Your task to perform on an android device: toggle data saver in the chrome app Image 0: 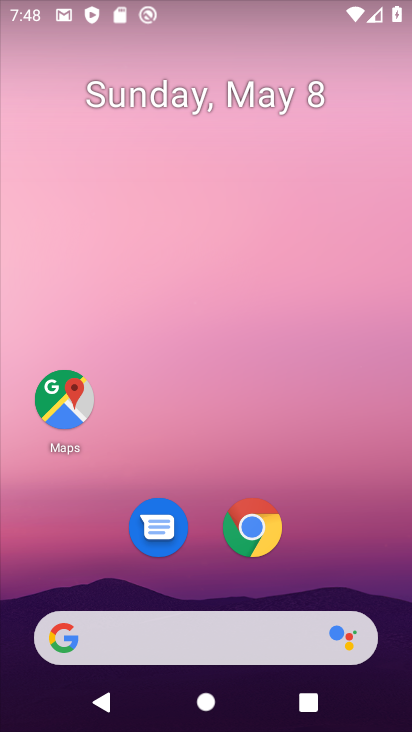
Step 0: drag from (381, 657) to (303, 11)
Your task to perform on an android device: toggle data saver in the chrome app Image 1: 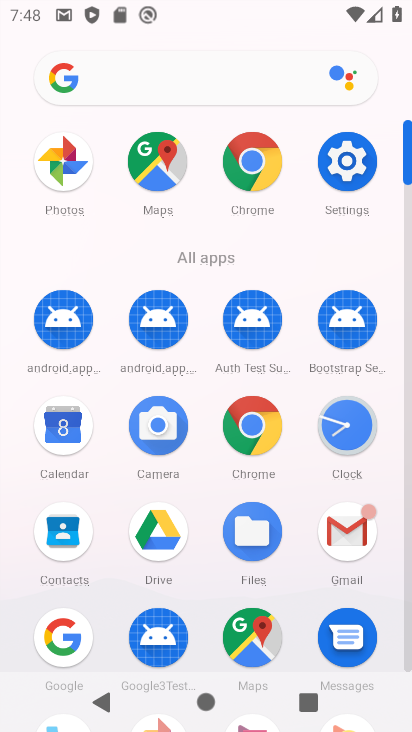
Step 1: click (249, 424)
Your task to perform on an android device: toggle data saver in the chrome app Image 2: 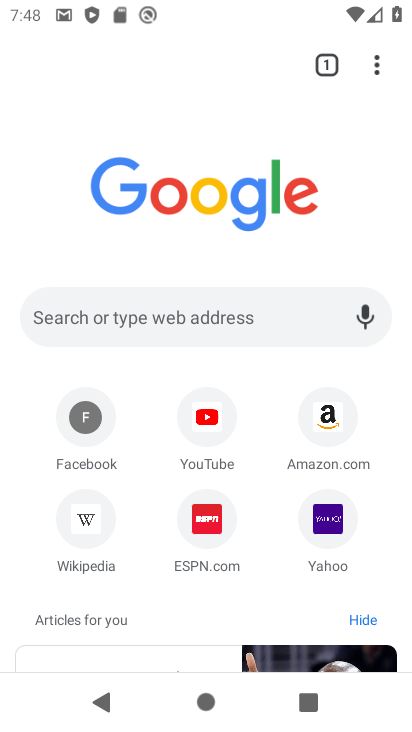
Step 2: drag from (375, 48) to (154, 533)
Your task to perform on an android device: toggle data saver in the chrome app Image 3: 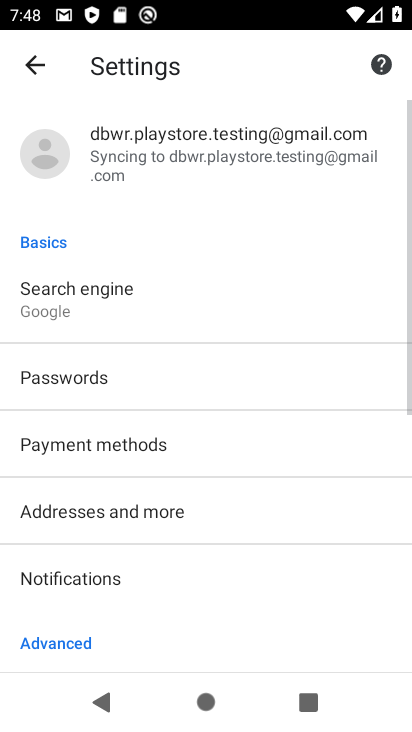
Step 3: drag from (306, 557) to (290, 173)
Your task to perform on an android device: toggle data saver in the chrome app Image 4: 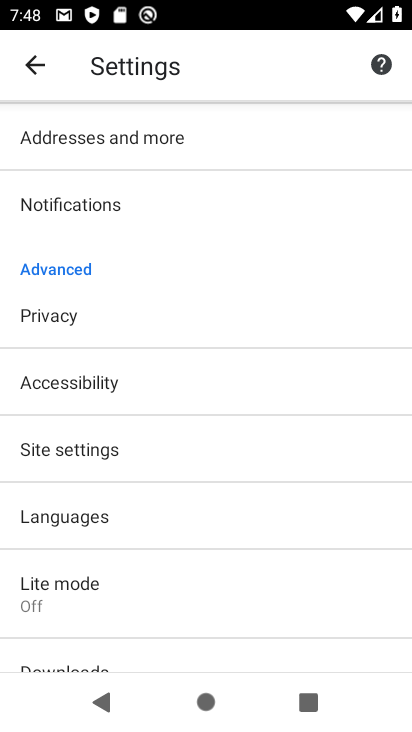
Step 4: click (174, 587)
Your task to perform on an android device: toggle data saver in the chrome app Image 5: 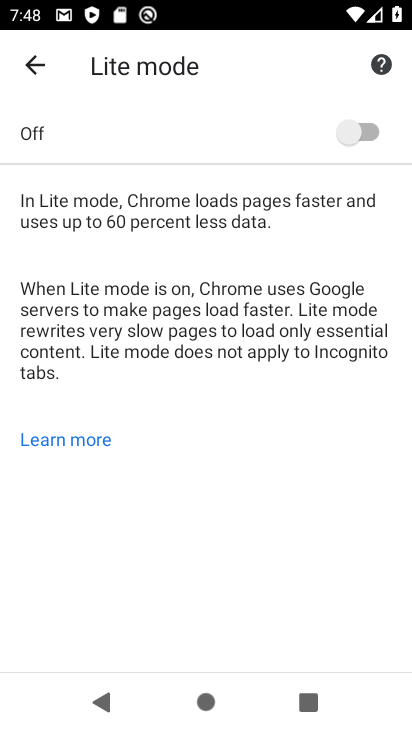
Step 5: click (365, 136)
Your task to perform on an android device: toggle data saver in the chrome app Image 6: 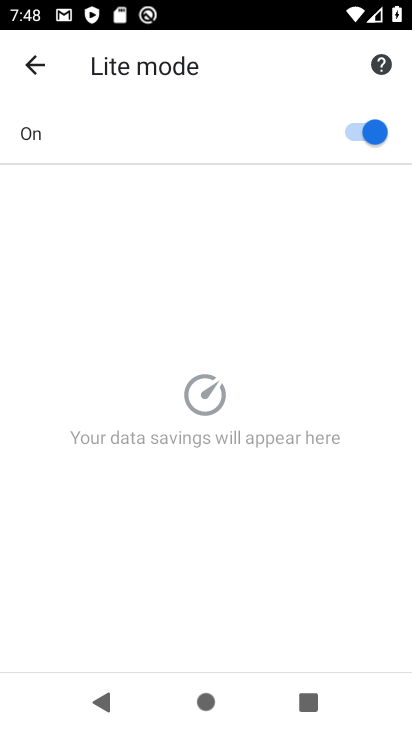
Step 6: task complete